Your task to perform on an android device: turn pop-ups on in chrome Image 0: 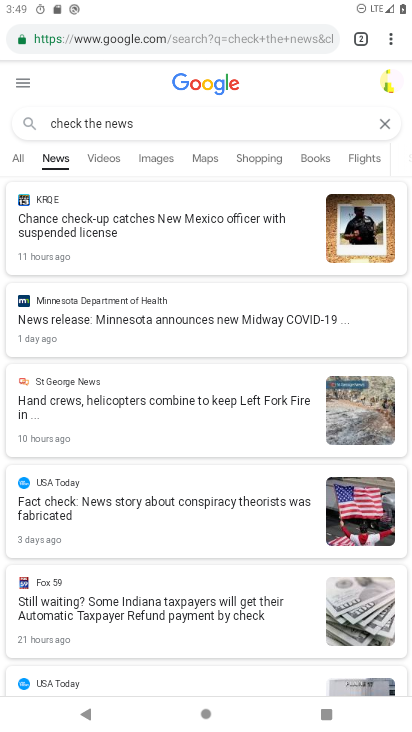
Step 0: drag from (386, 40) to (254, 441)
Your task to perform on an android device: turn pop-ups on in chrome Image 1: 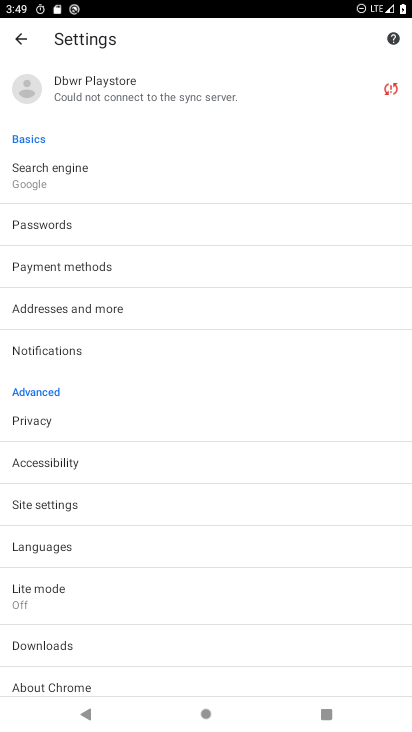
Step 1: click (71, 507)
Your task to perform on an android device: turn pop-ups on in chrome Image 2: 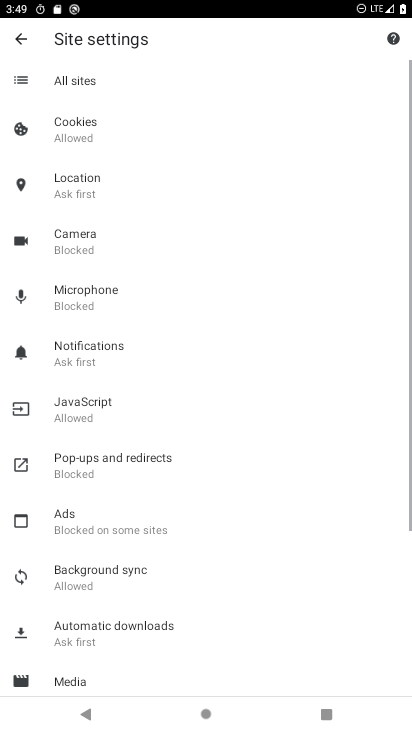
Step 2: click (58, 470)
Your task to perform on an android device: turn pop-ups on in chrome Image 3: 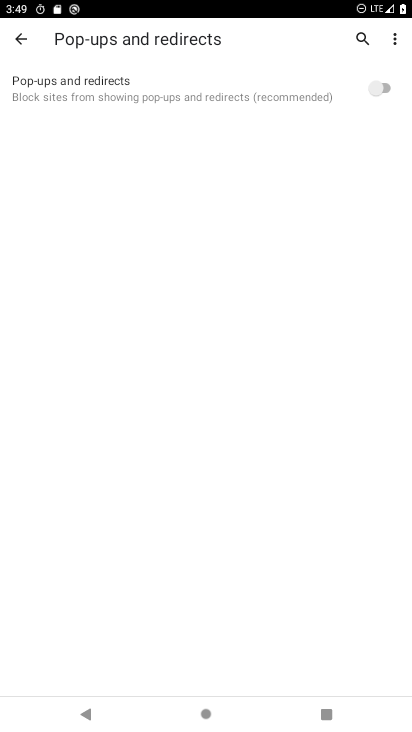
Step 3: task complete